Your task to perform on an android device: Do I have any events today? Image 0: 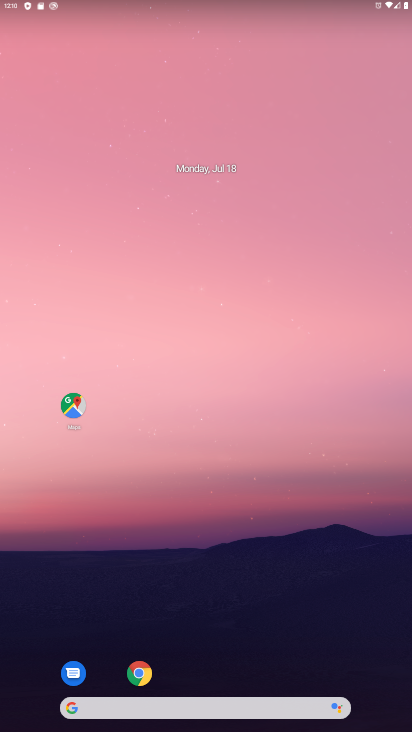
Step 0: drag from (252, 630) to (191, 212)
Your task to perform on an android device: Do I have any events today? Image 1: 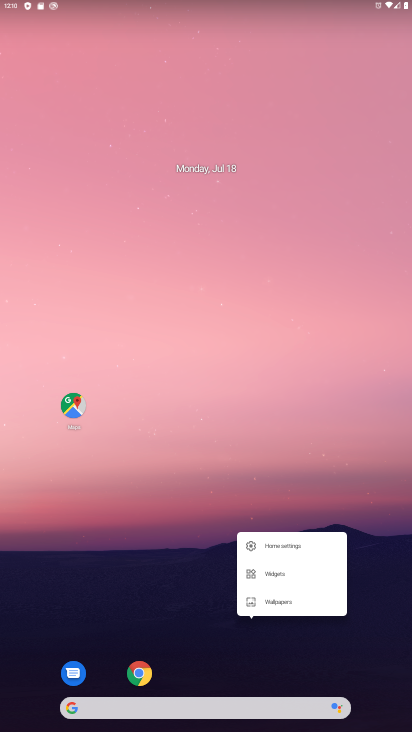
Step 1: click (155, 364)
Your task to perform on an android device: Do I have any events today? Image 2: 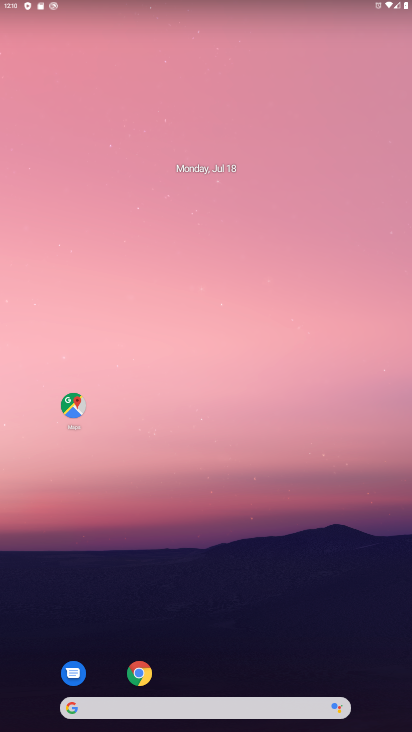
Step 2: drag from (213, 674) to (209, 190)
Your task to perform on an android device: Do I have any events today? Image 3: 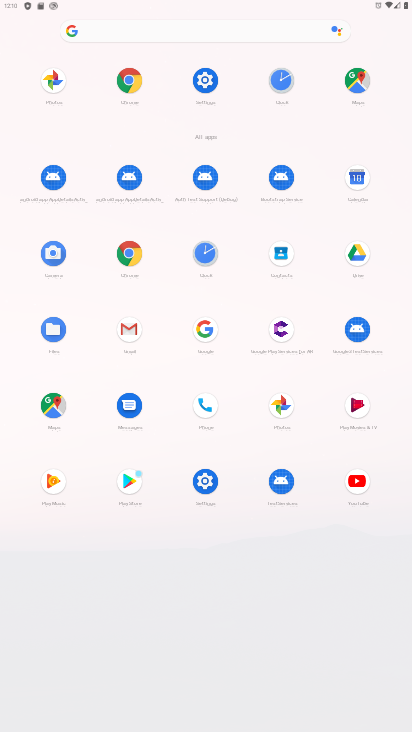
Step 3: click (215, 90)
Your task to perform on an android device: Do I have any events today? Image 4: 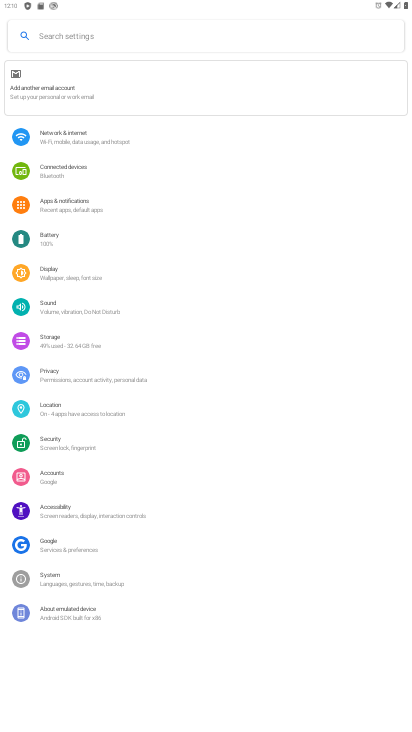
Step 4: press home button
Your task to perform on an android device: Do I have any events today? Image 5: 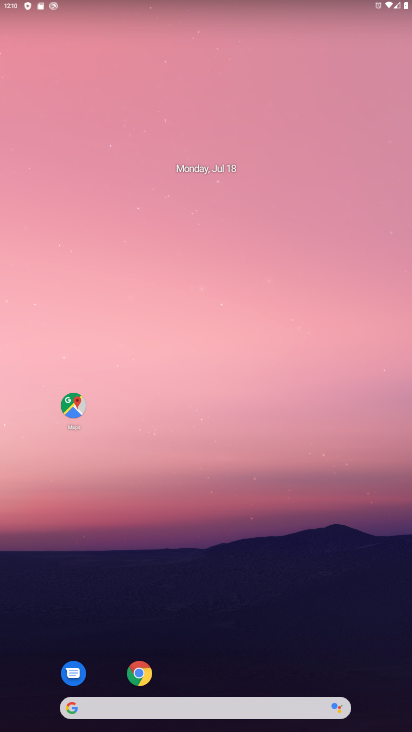
Step 5: drag from (271, 670) to (255, 127)
Your task to perform on an android device: Do I have any events today? Image 6: 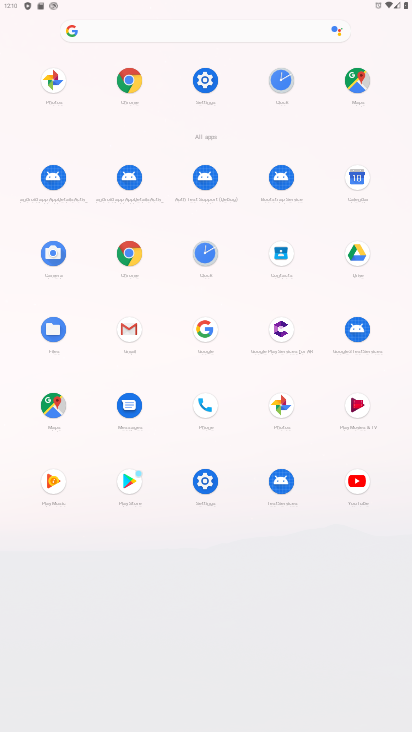
Step 6: click (354, 181)
Your task to perform on an android device: Do I have any events today? Image 7: 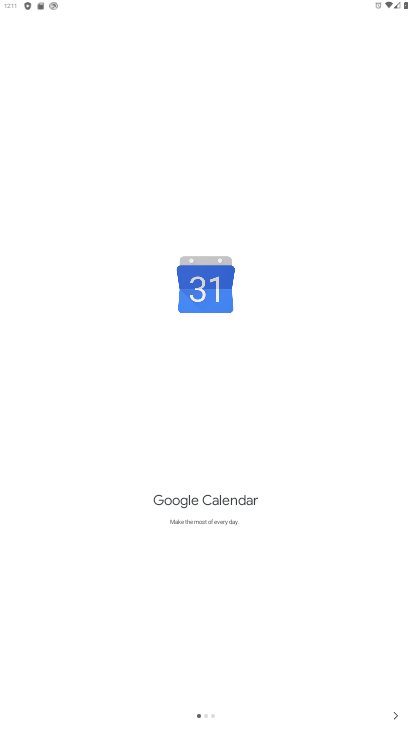
Step 7: click (390, 707)
Your task to perform on an android device: Do I have any events today? Image 8: 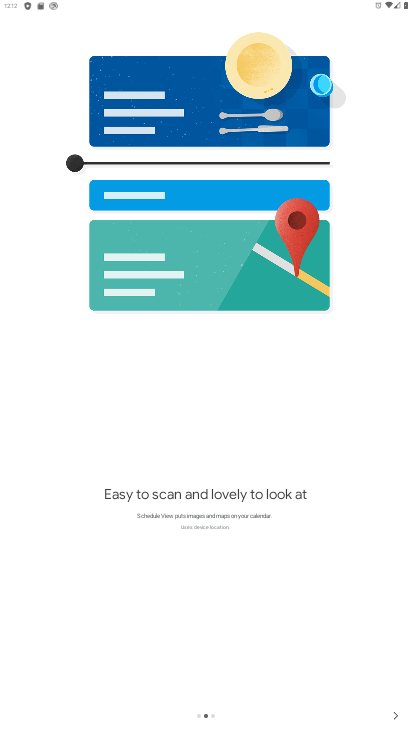
Step 8: click (390, 707)
Your task to perform on an android device: Do I have any events today? Image 9: 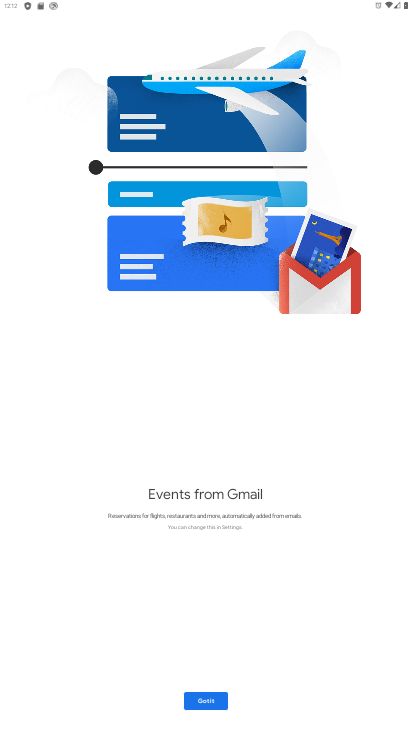
Step 9: click (390, 707)
Your task to perform on an android device: Do I have any events today? Image 10: 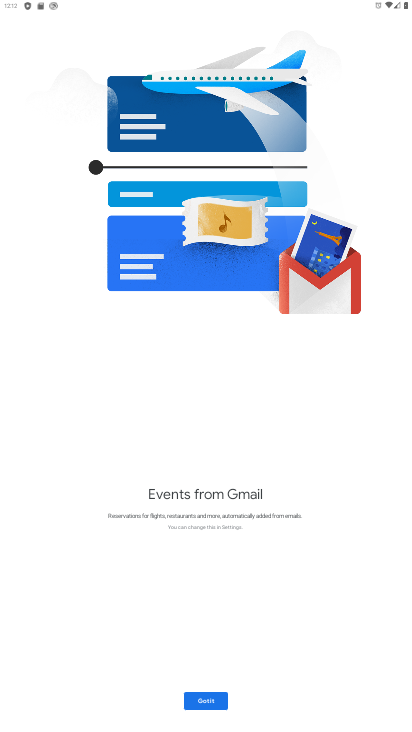
Step 10: click (203, 698)
Your task to perform on an android device: Do I have any events today? Image 11: 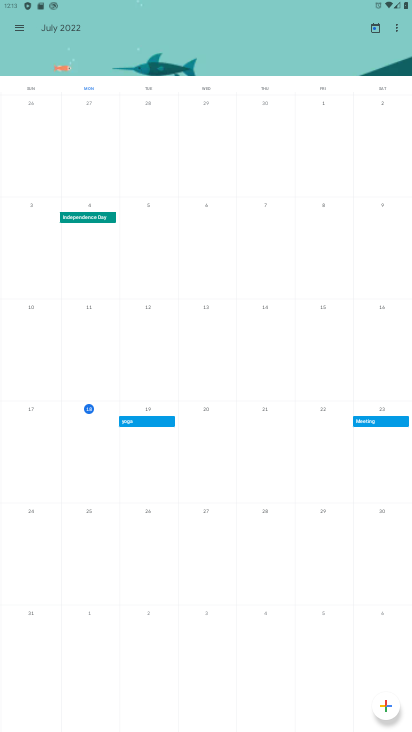
Step 11: task complete